Your task to perform on an android device: all mails in gmail Image 0: 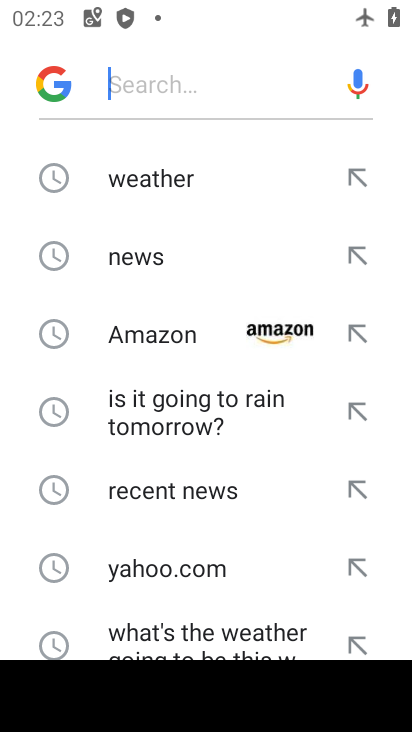
Step 0: press back button
Your task to perform on an android device: all mails in gmail Image 1: 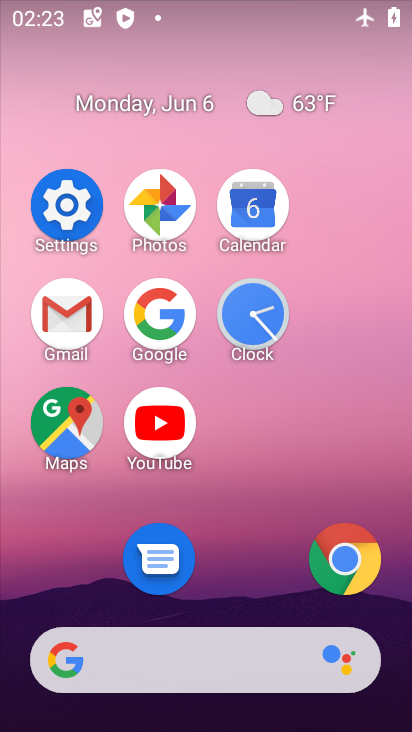
Step 1: click (85, 304)
Your task to perform on an android device: all mails in gmail Image 2: 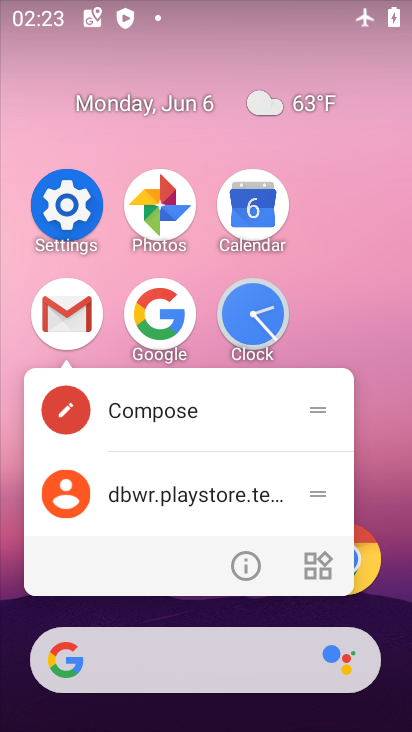
Step 2: click (60, 308)
Your task to perform on an android device: all mails in gmail Image 3: 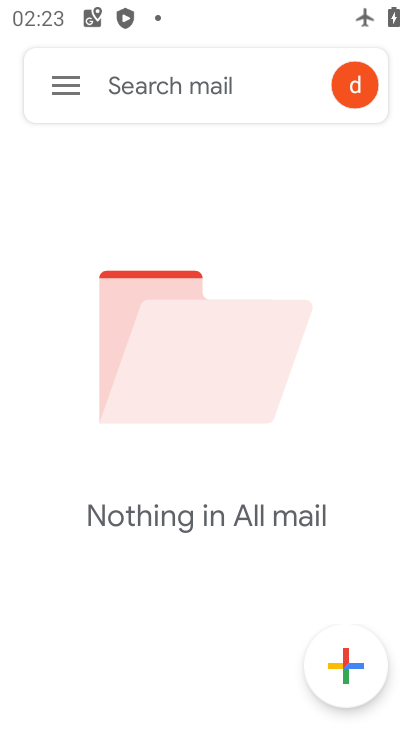
Step 3: click (75, 104)
Your task to perform on an android device: all mails in gmail Image 4: 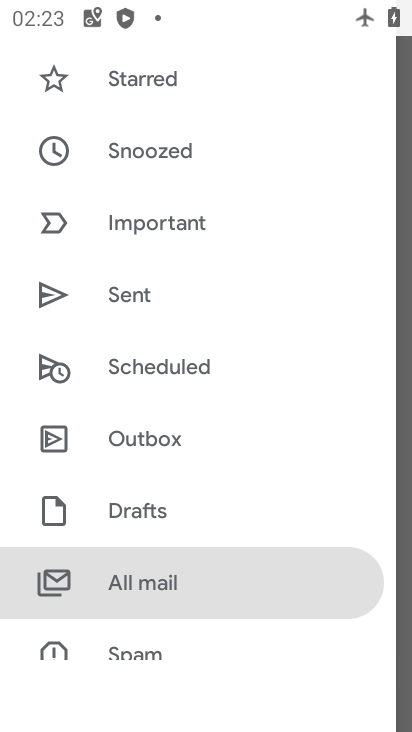
Step 4: click (183, 579)
Your task to perform on an android device: all mails in gmail Image 5: 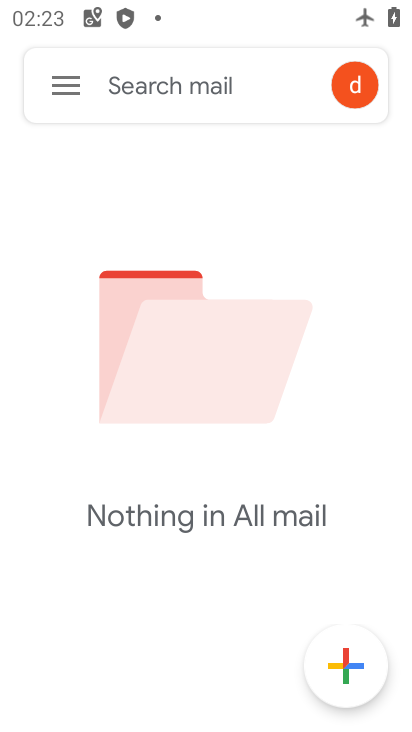
Step 5: task complete